Your task to perform on an android device: Open Google Maps and go to "Timeline" Image 0: 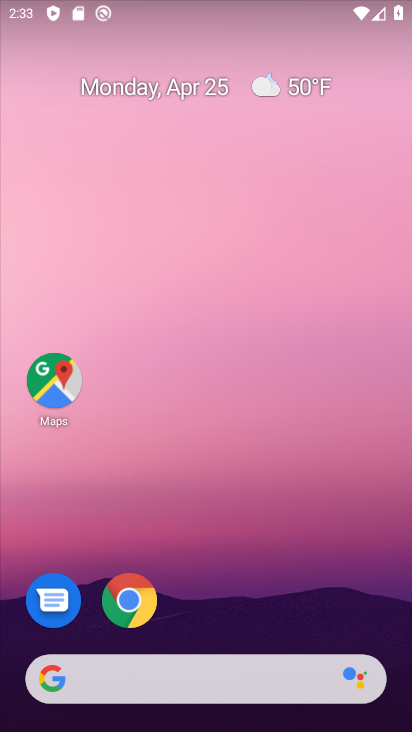
Step 0: drag from (360, 610) to (357, 271)
Your task to perform on an android device: Open Google Maps and go to "Timeline" Image 1: 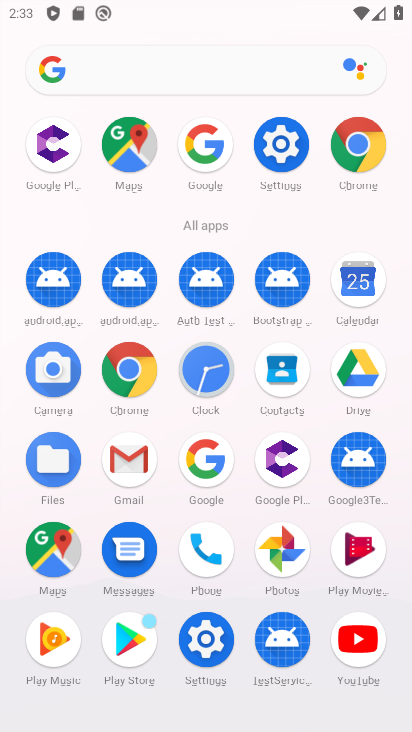
Step 1: click (40, 559)
Your task to perform on an android device: Open Google Maps and go to "Timeline" Image 2: 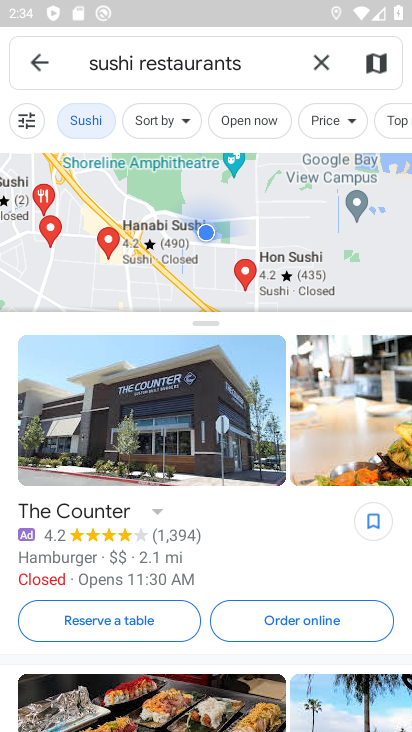
Step 2: click (40, 64)
Your task to perform on an android device: Open Google Maps and go to "Timeline" Image 3: 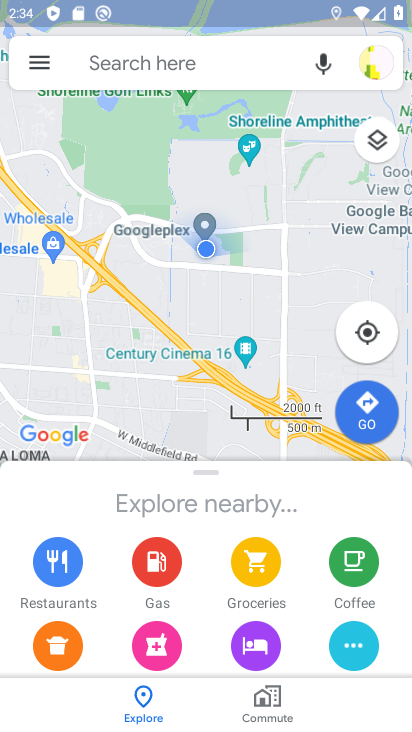
Step 3: click (40, 64)
Your task to perform on an android device: Open Google Maps and go to "Timeline" Image 4: 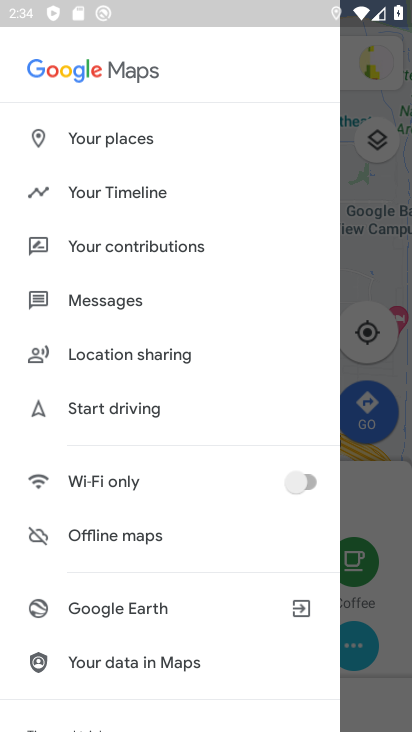
Step 4: click (102, 194)
Your task to perform on an android device: Open Google Maps and go to "Timeline" Image 5: 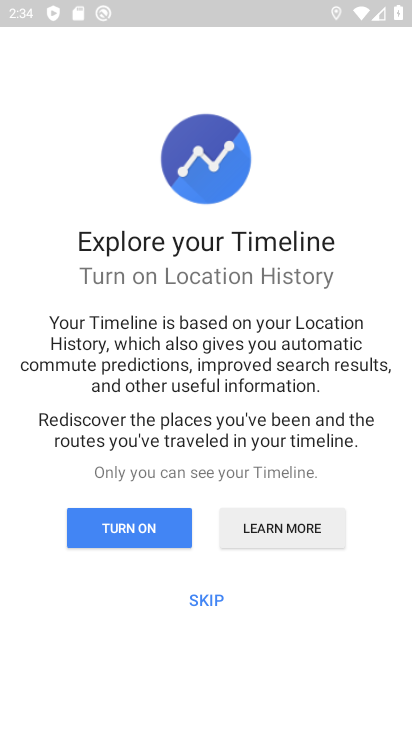
Step 5: click (220, 597)
Your task to perform on an android device: Open Google Maps and go to "Timeline" Image 6: 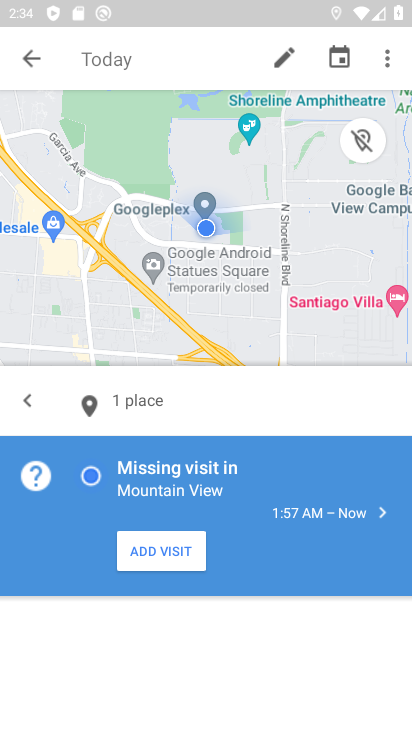
Step 6: task complete